Your task to perform on an android device: Find coffee shops on Maps Image 0: 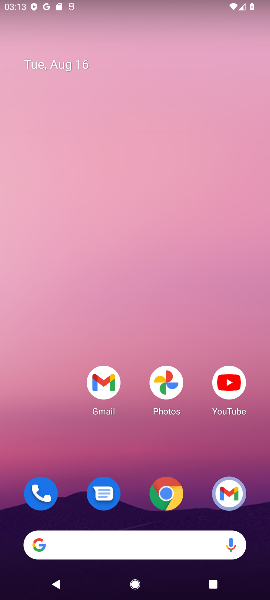
Step 0: press home button
Your task to perform on an android device: Find coffee shops on Maps Image 1: 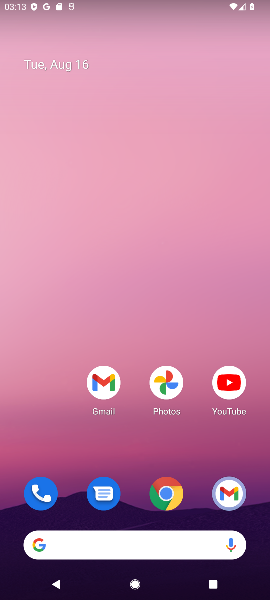
Step 1: drag from (72, 469) to (71, 109)
Your task to perform on an android device: Find coffee shops on Maps Image 2: 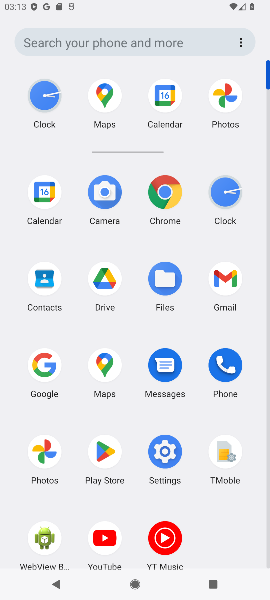
Step 2: click (97, 368)
Your task to perform on an android device: Find coffee shops on Maps Image 3: 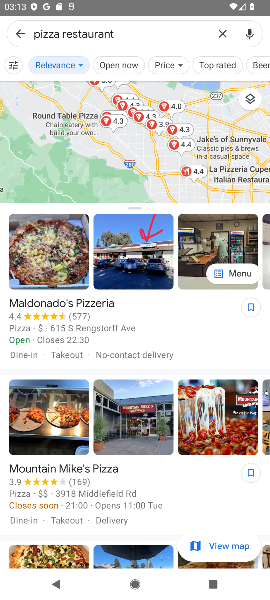
Step 3: click (221, 32)
Your task to perform on an android device: Find coffee shops on Maps Image 4: 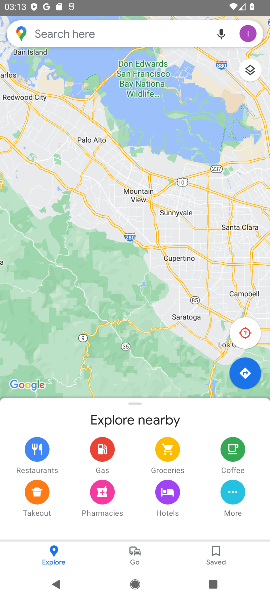
Step 4: click (122, 19)
Your task to perform on an android device: Find coffee shops on Maps Image 5: 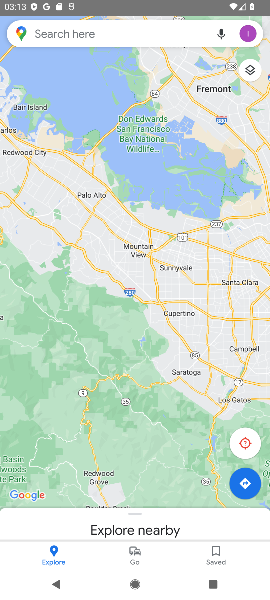
Step 5: click (147, 26)
Your task to perform on an android device: Find coffee shops on Maps Image 6: 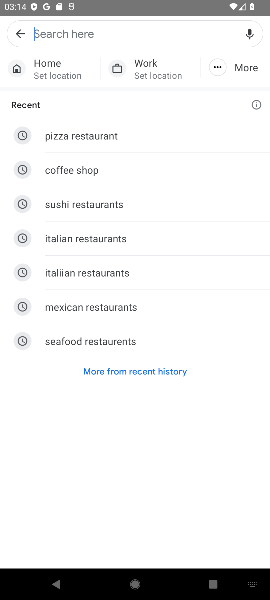
Step 6: type "coffee shops"
Your task to perform on an android device: Find coffee shops on Maps Image 7: 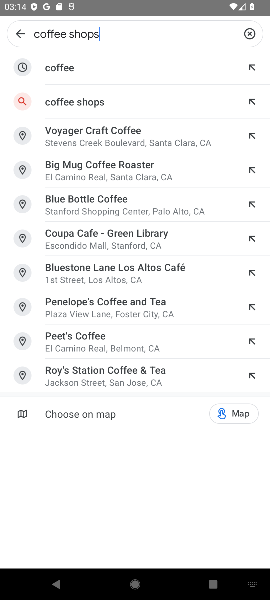
Step 7: click (154, 105)
Your task to perform on an android device: Find coffee shops on Maps Image 8: 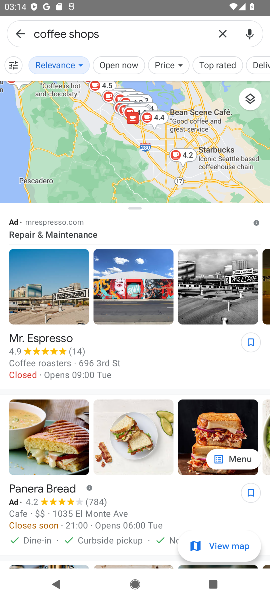
Step 8: task complete